Your task to perform on an android device: add a contact Image 0: 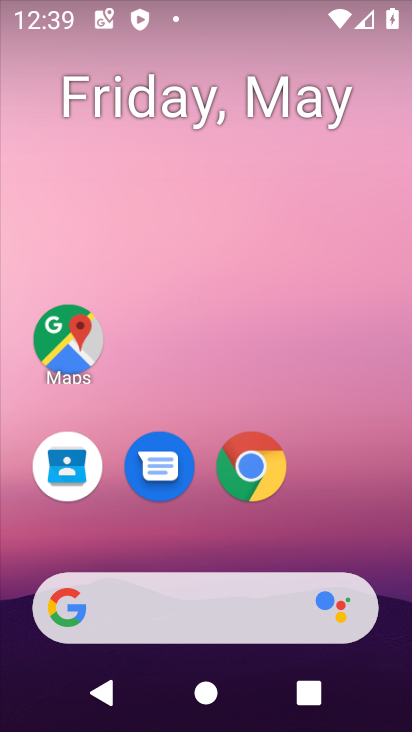
Step 0: drag from (228, 542) to (204, 2)
Your task to perform on an android device: add a contact Image 1: 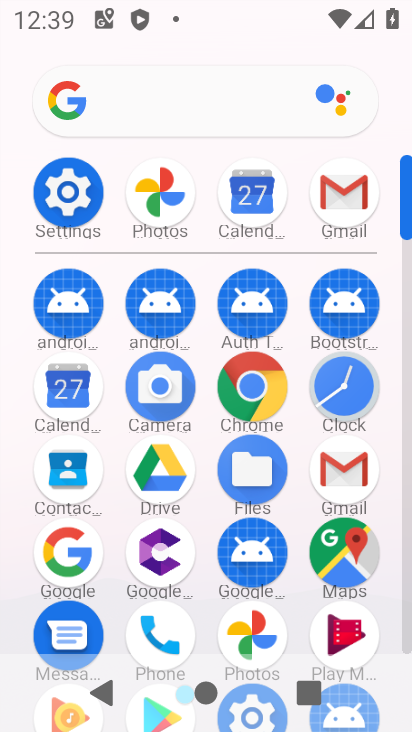
Step 1: drag from (196, 630) to (230, 265)
Your task to perform on an android device: add a contact Image 2: 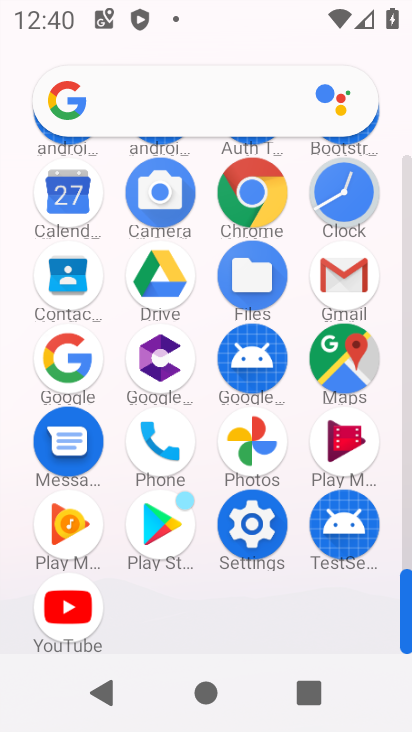
Step 2: click (82, 291)
Your task to perform on an android device: add a contact Image 3: 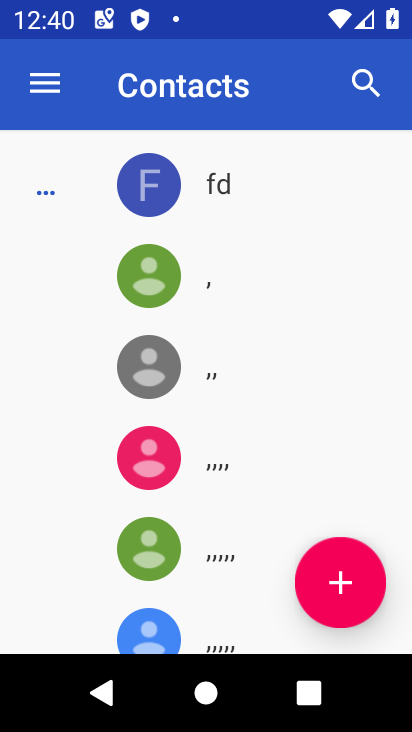
Step 3: click (360, 574)
Your task to perform on an android device: add a contact Image 4: 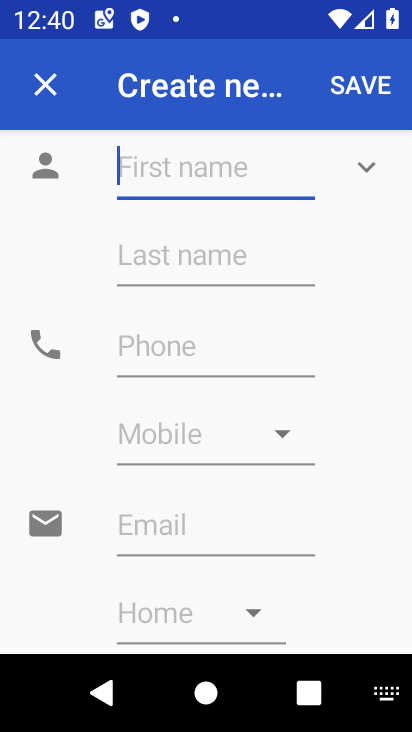
Step 4: type "Vikramaditya"
Your task to perform on an android device: add a contact Image 5: 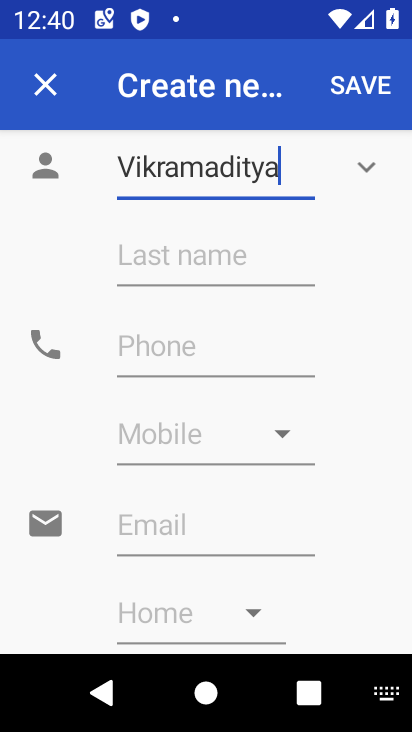
Step 5: click (261, 374)
Your task to perform on an android device: add a contact Image 6: 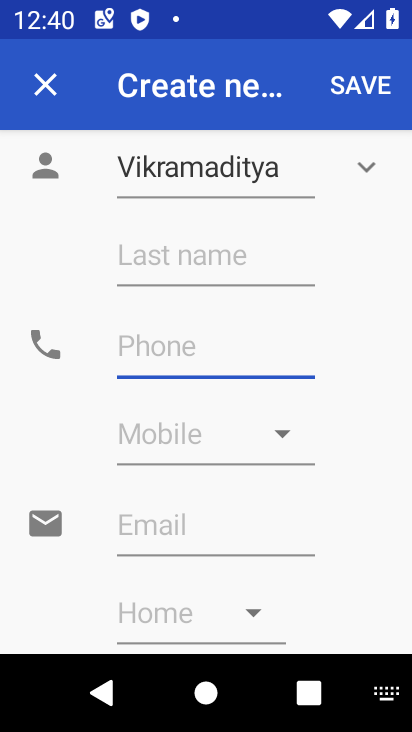
Step 6: type "6565656767"
Your task to perform on an android device: add a contact Image 7: 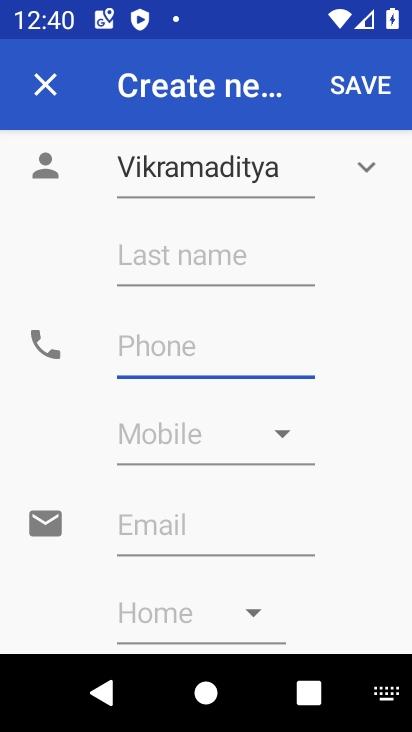
Step 7: click (383, 94)
Your task to perform on an android device: add a contact Image 8: 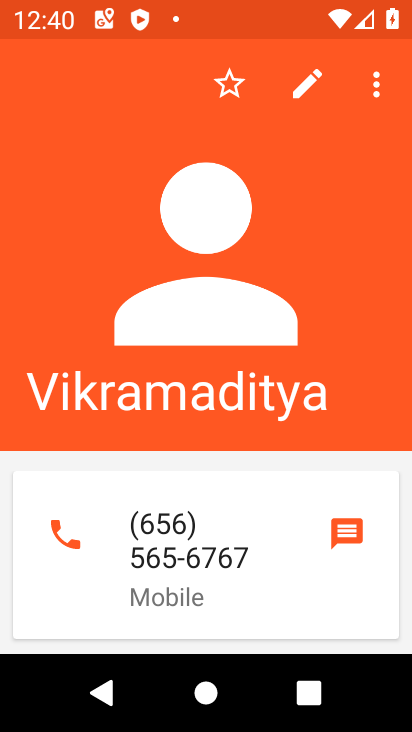
Step 8: task complete